Your task to perform on an android device: open app "Google Duo" Image 0: 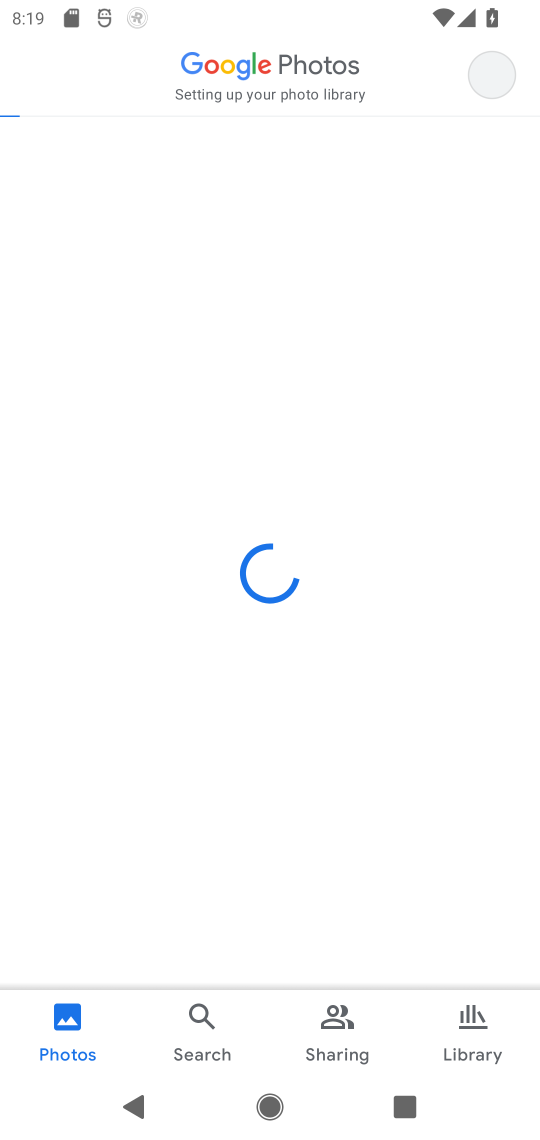
Step 0: press home button
Your task to perform on an android device: open app "Google Duo" Image 1: 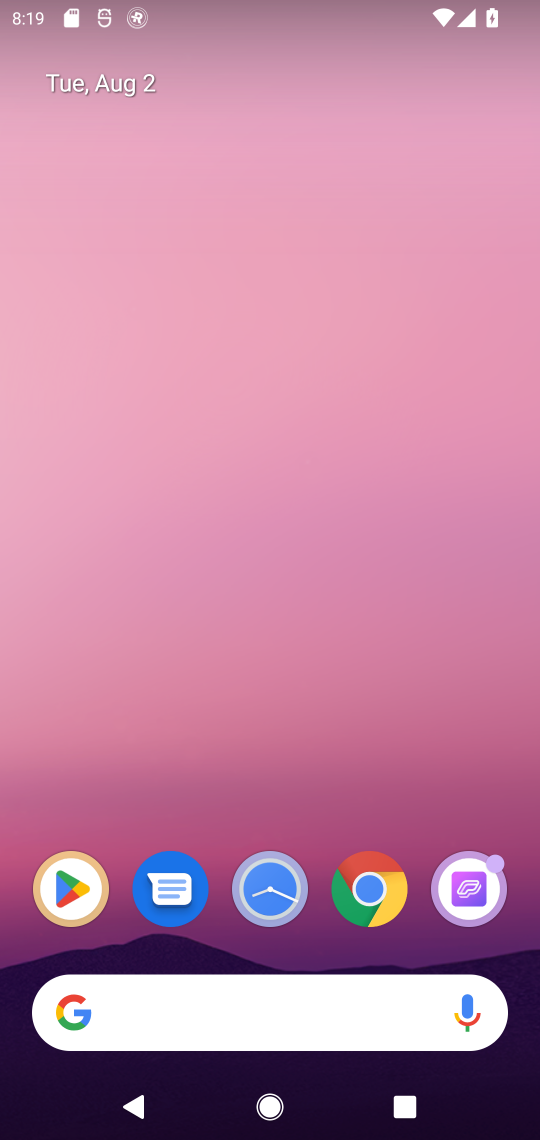
Step 1: click (82, 885)
Your task to perform on an android device: open app "Google Duo" Image 2: 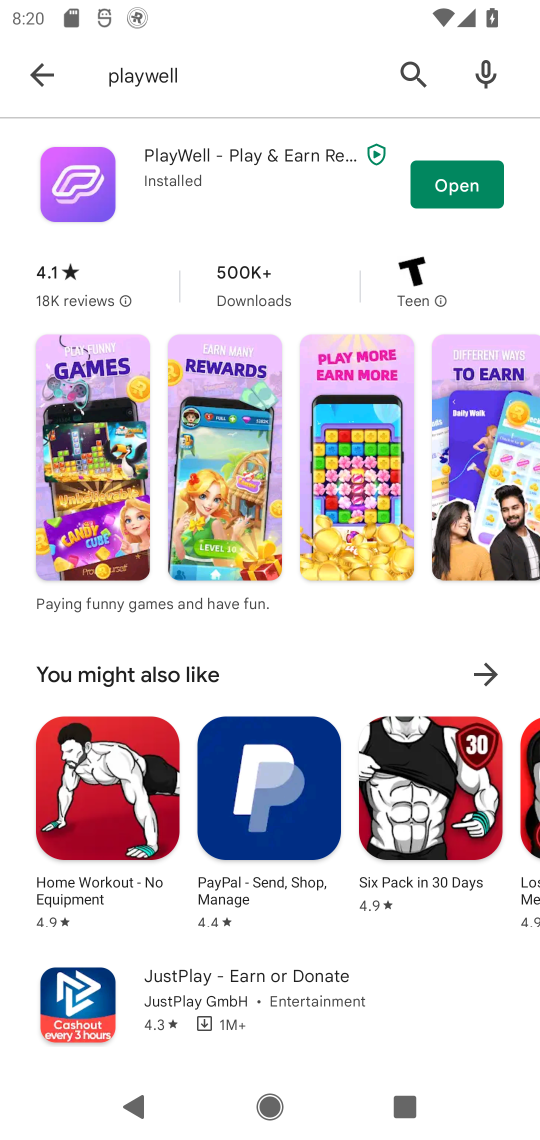
Step 2: click (409, 63)
Your task to perform on an android device: open app "Google Duo" Image 3: 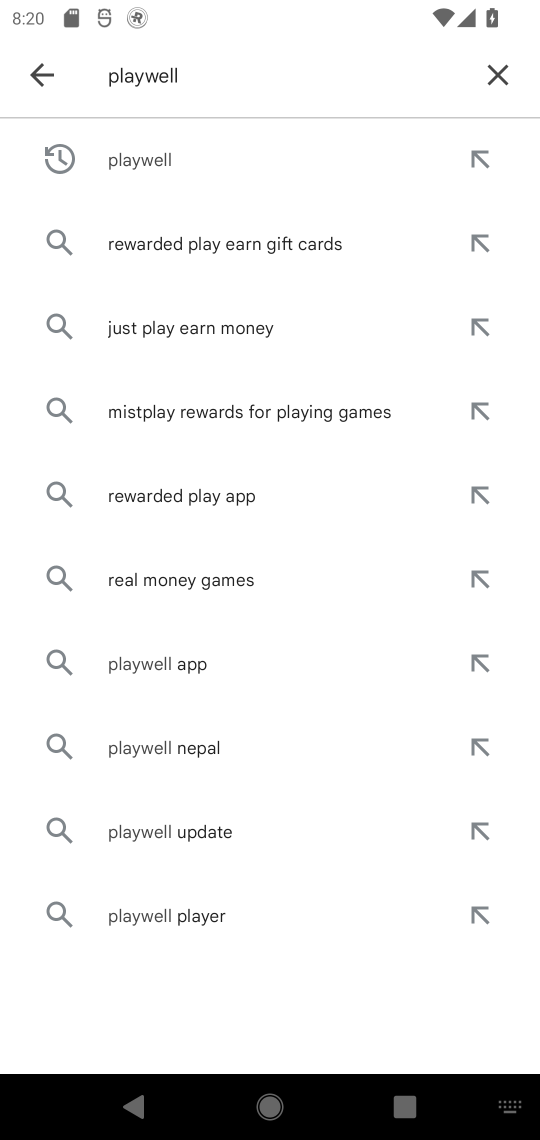
Step 3: click (496, 67)
Your task to perform on an android device: open app "Google Duo" Image 4: 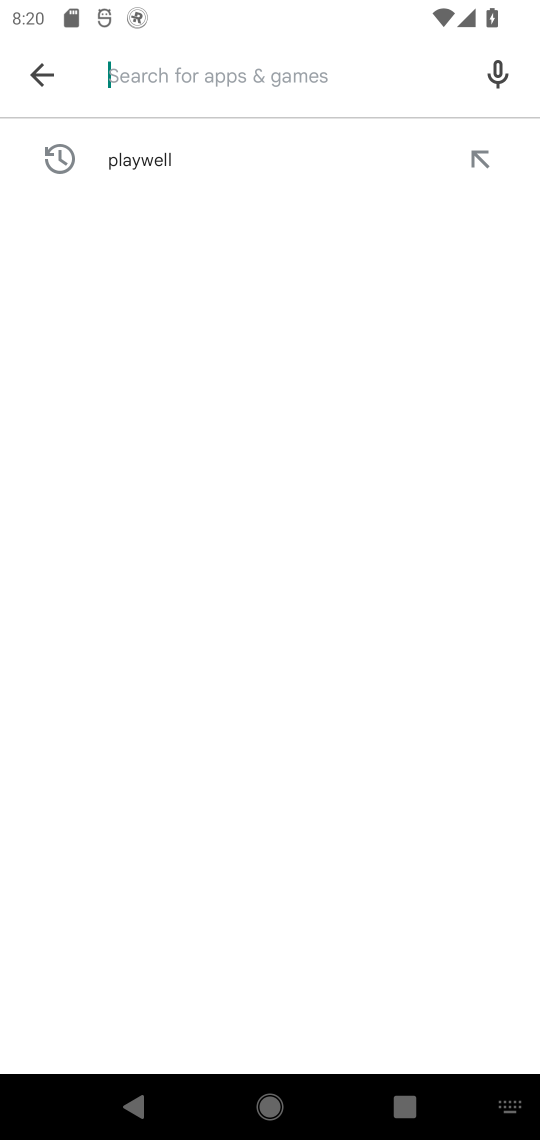
Step 4: type "Google Duo"
Your task to perform on an android device: open app "Google Duo" Image 5: 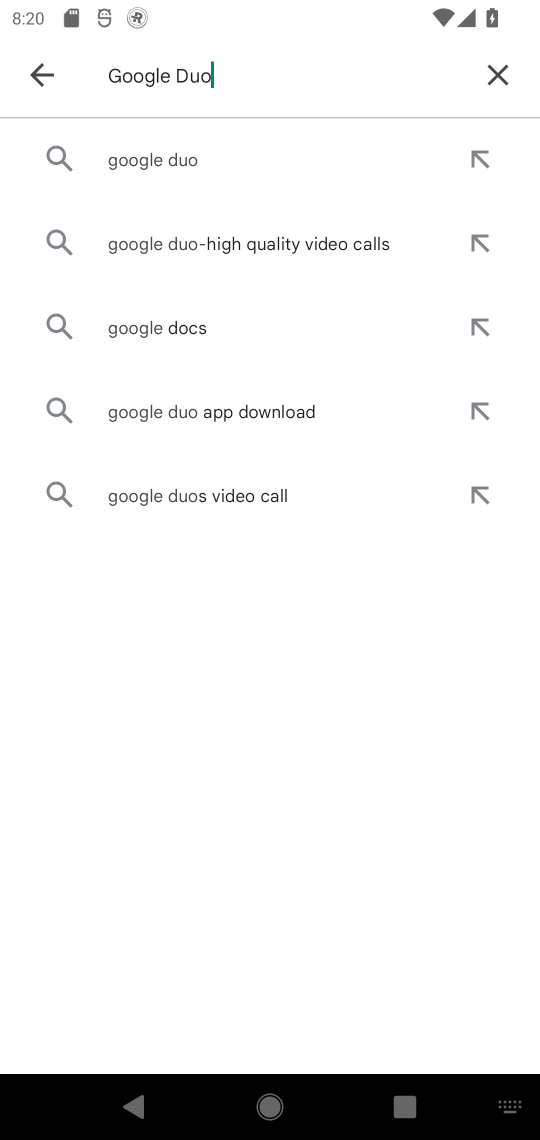
Step 5: click (174, 162)
Your task to perform on an android device: open app "Google Duo" Image 6: 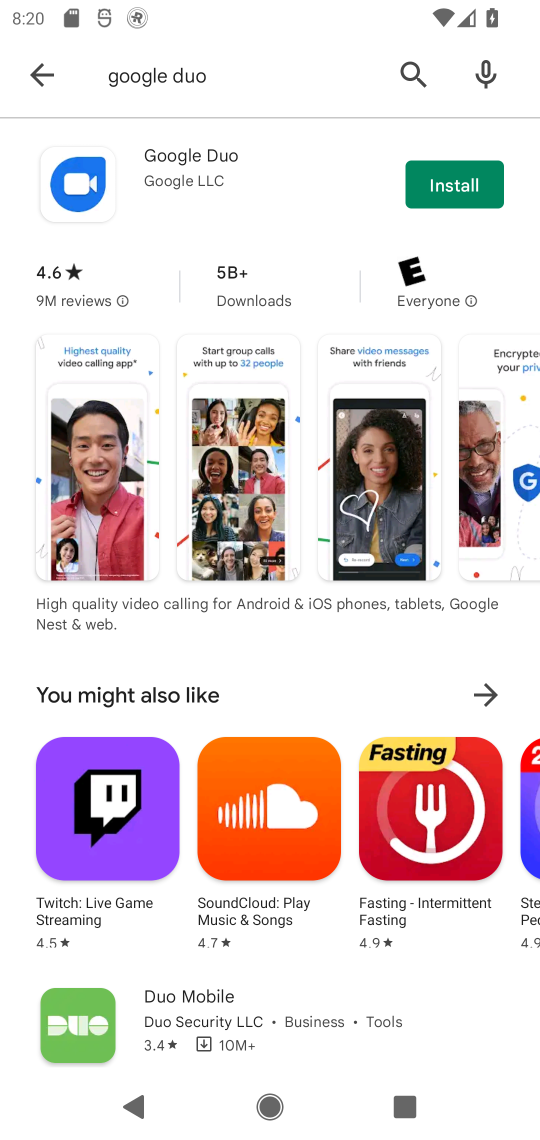
Step 6: task complete